Your task to perform on an android device: Search for a new lawnmower on Lowes.com Image 0: 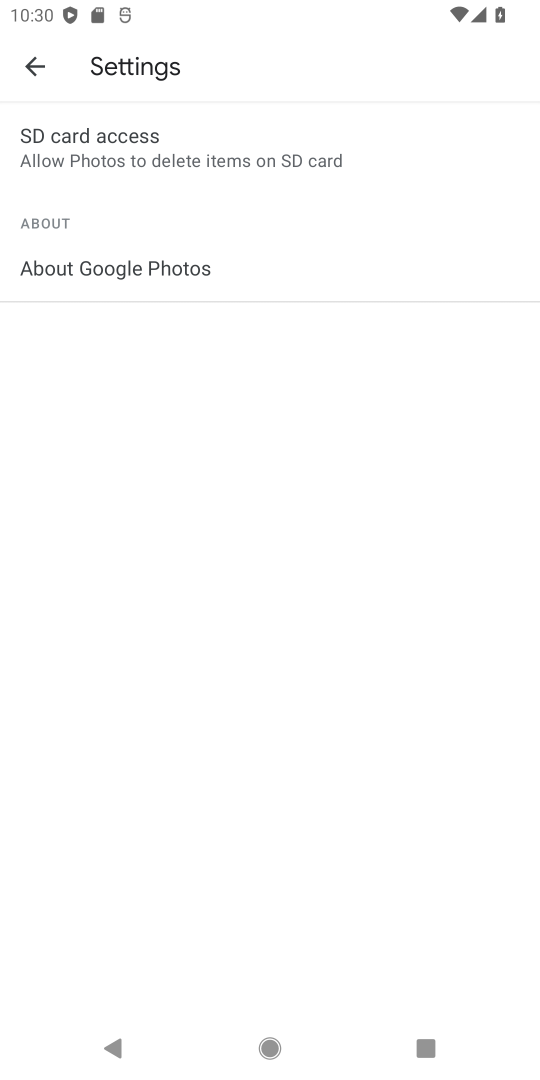
Step 0: press home button
Your task to perform on an android device: Search for a new lawnmower on Lowes.com Image 1: 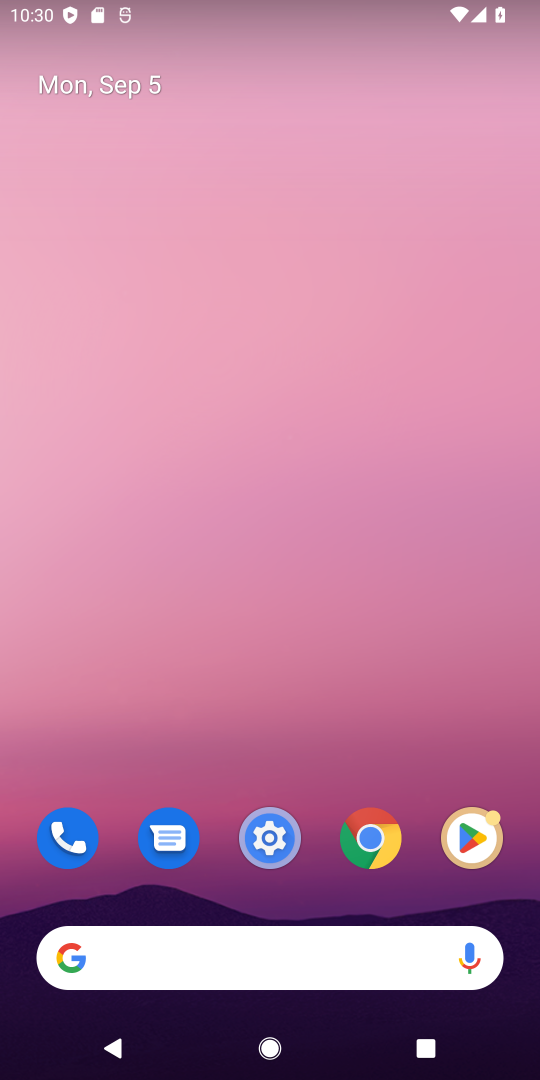
Step 1: click (179, 974)
Your task to perform on an android device: Search for a new lawnmower on Lowes.com Image 2: 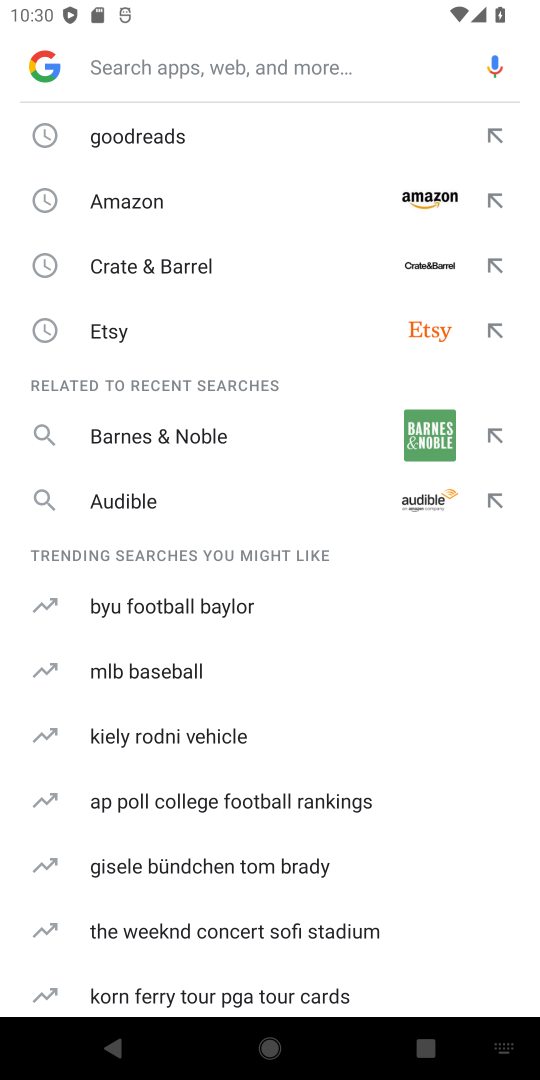
Step 2: type "Lowes.com"
Your task to perform on an android device: Search for a new lawnmower on Lowes.com Image 3: 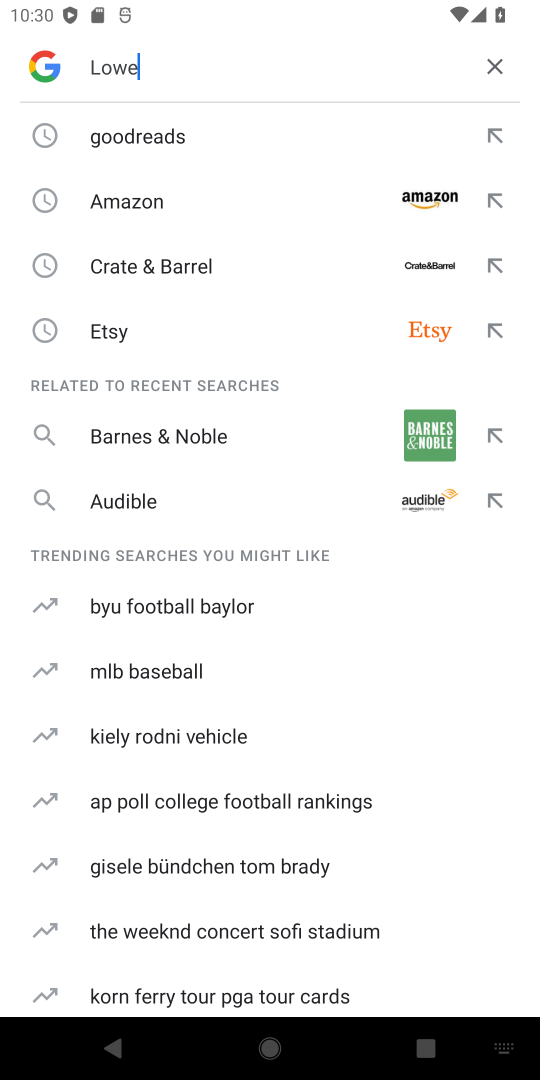
Step 3: type ""
Your task to perform on an android device: Search for a new lawnmower on Lowes.com Image 4: 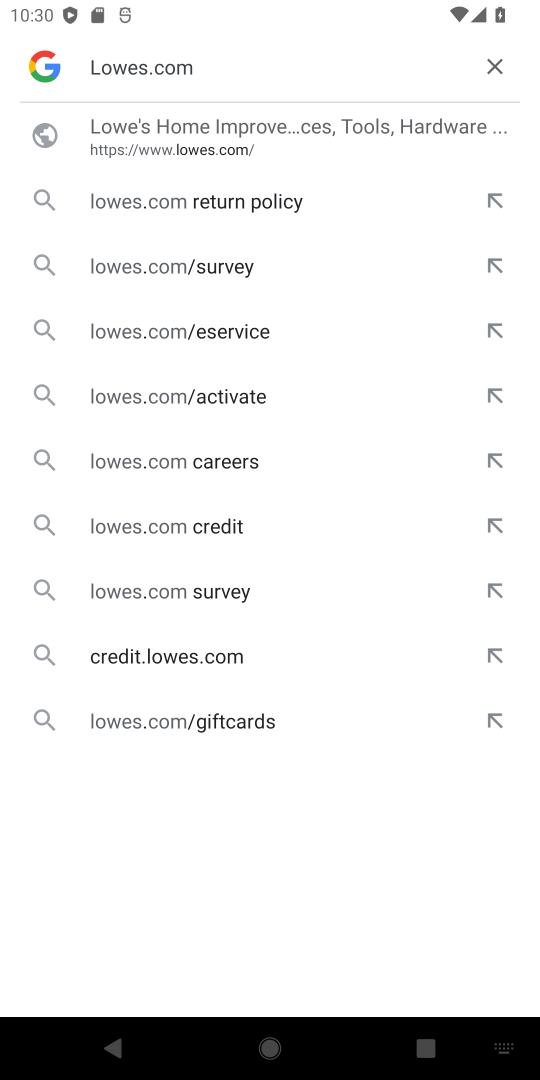
Step 4: click (224, 149)
Your task to perform on an android device: Search for a new lawnmower on Lowes.com Image 5: 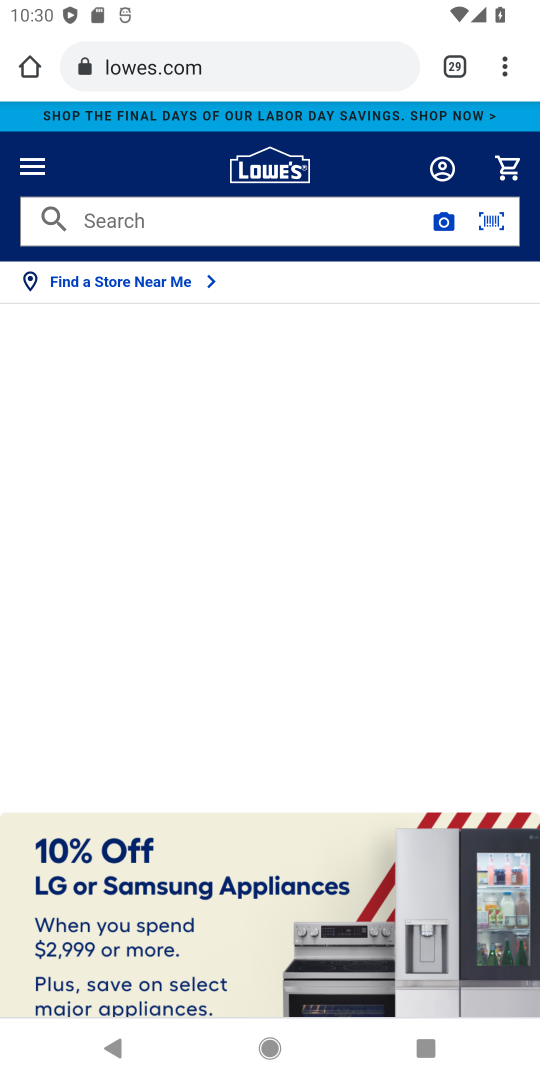
Step 5: click (140, 226)
Your task to perform on an android device: Search for a new lawnmower on Lowes.com Image 6: 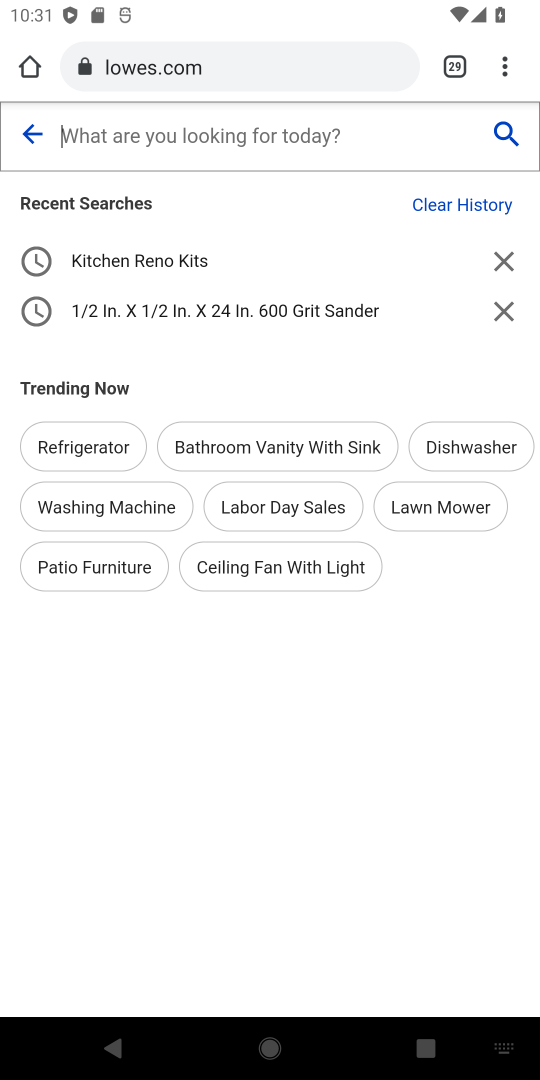
Step 6: type " lawnmower"
Your task to perform on an android device: Search for a new lawnmower on Lowes.com Image 7: 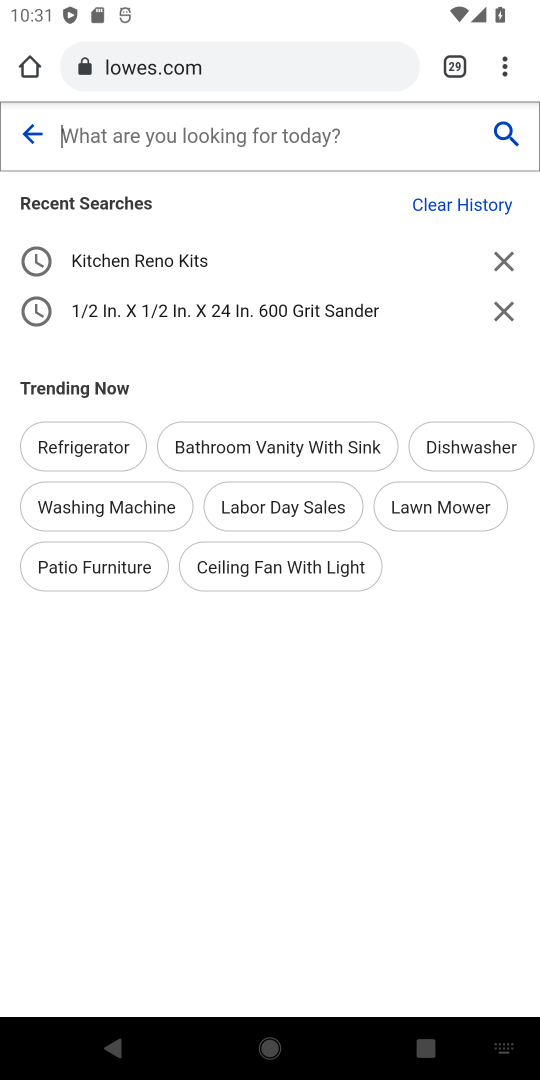
Step 7: type ""
Your task to perform on an android device: Search for a new lawnmower on Lowes.com Image 8: 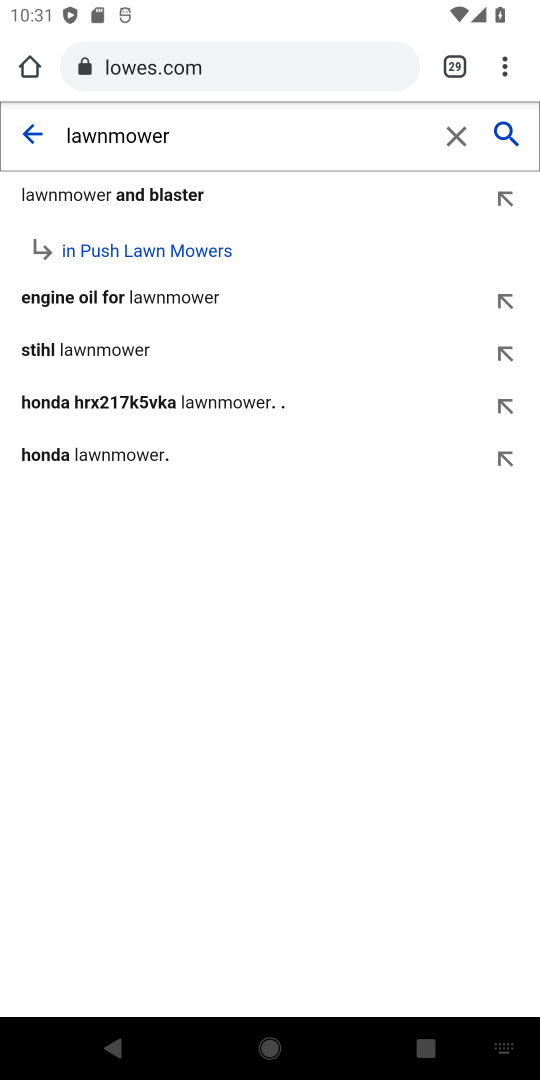
Step 8: click (502, 124)
Your task to perform on an android device: Search for a new lawnmower on Lowes.com Image 9: 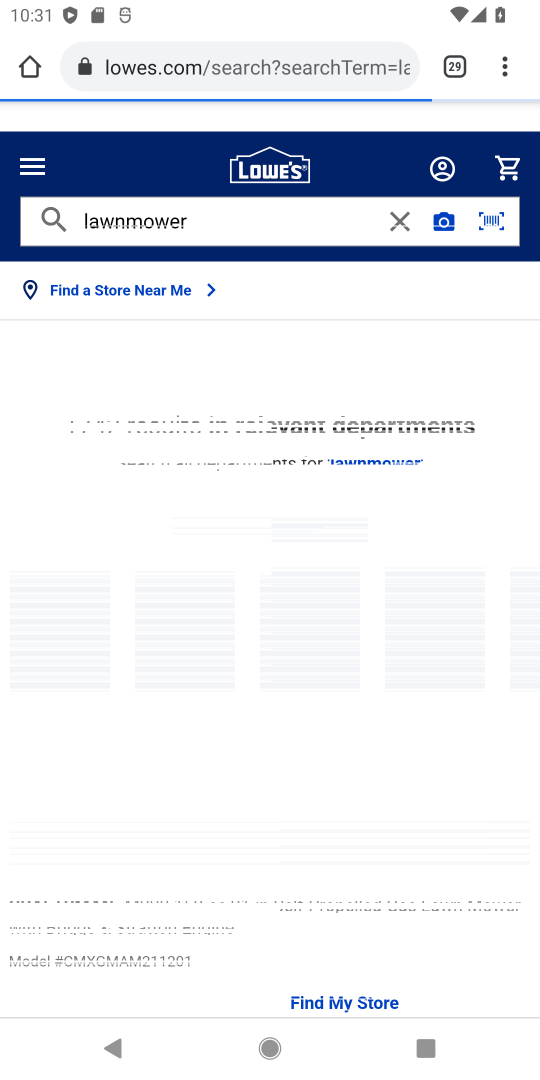
Step 9: task complete